Your task to perform on an android device: set the timer Image 0: 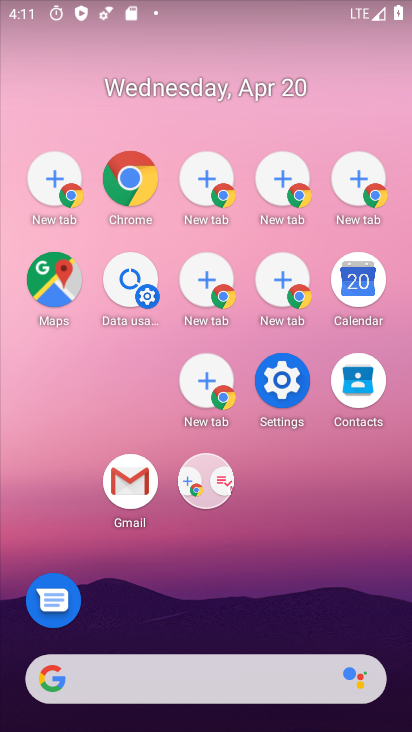
Step 0: drag from (26, 465) to (20, 215)
Your task to perform on an android device: set the timer Image 1: 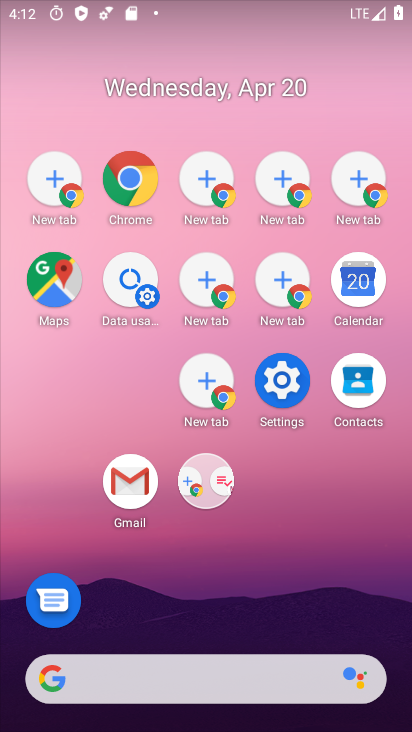
Step 1: drag from (297, 550) to (68, 141)
Your task to perform on an android device: set the timer Image 2: 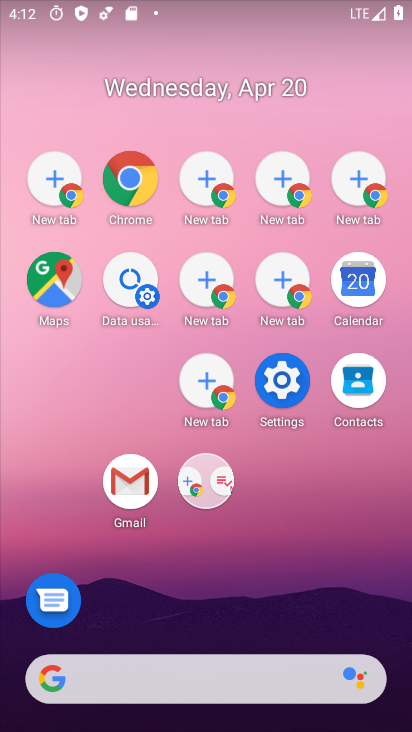
Step 2: press home button
Your task to perform on an android device: set the timer Image 3: 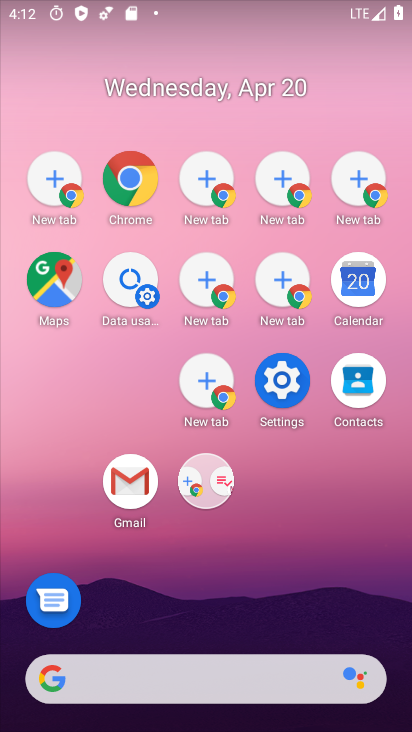
Step 3: drag from (305, 570) to (22, 134)
Your task to perform on an android device: set the timer Image 4: 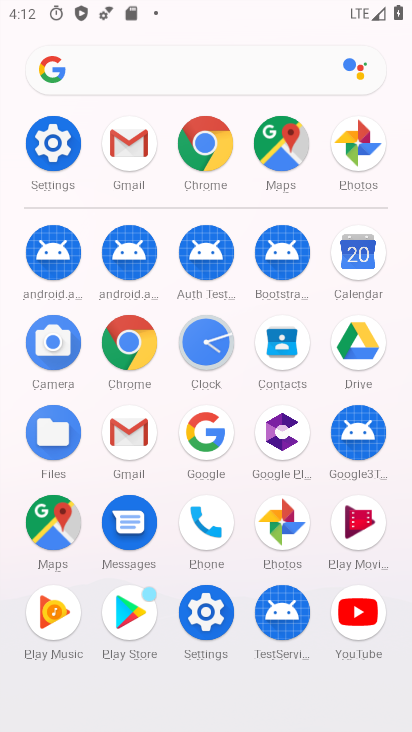
Step 4: click (205, 334)
Your task to perform on an android device: set the timer Image 5: 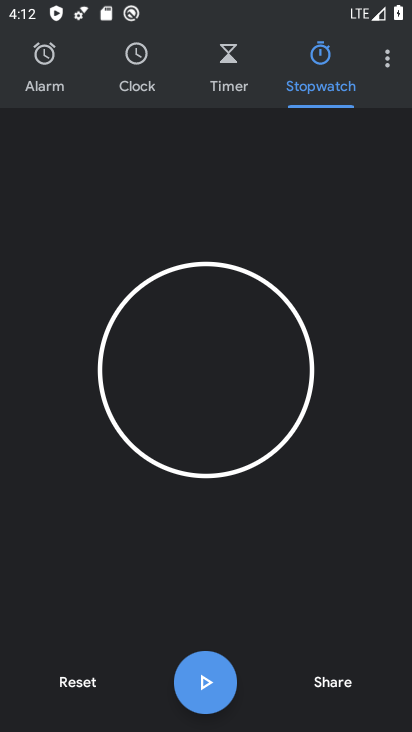
Step 5: click (217, 75)
Your task to perform on an android device: set the timer Image 6: 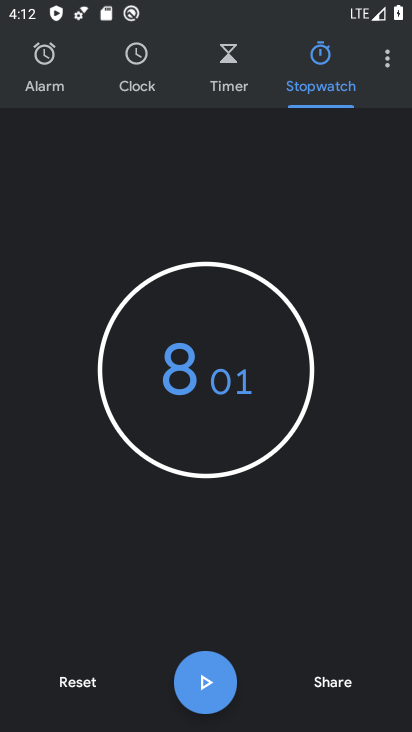
Step 6: click (225, 66)
Your task to perform on an android device: set the timer Image 7: 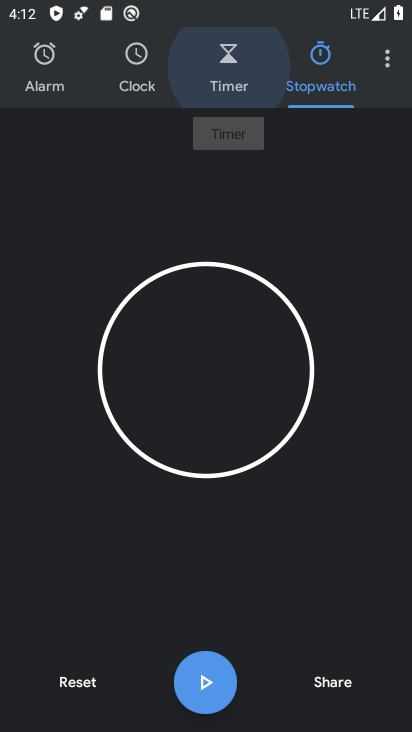
Step 7: click (227, 64)
Your task to perform on an android device: set the timer Image 8: 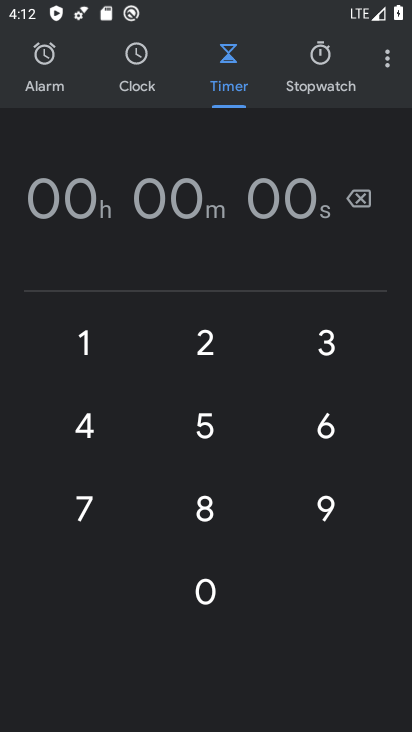
Step 8: click (227, 64)
Your task to perform on an android device: set the timer Image 9: 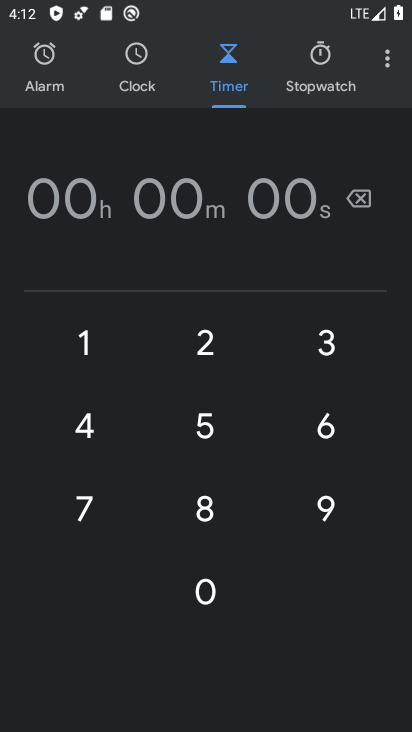
Step 9: click (204, 520)
Your task to perform on an android device: set the timer Image 10: 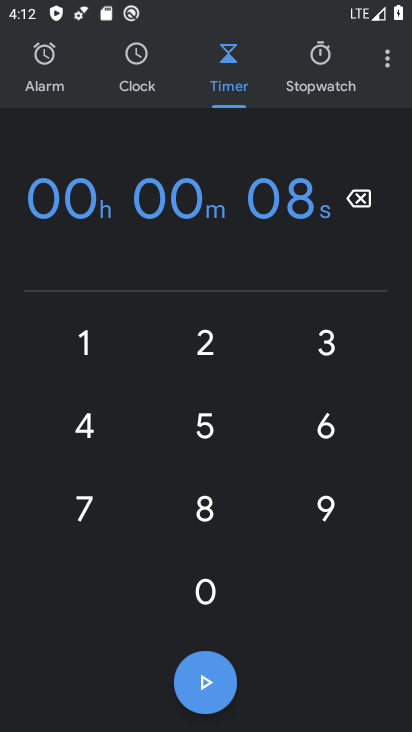
Step 10: click (208, 677)
Your task to perform on an android device: set the timer Image 11: 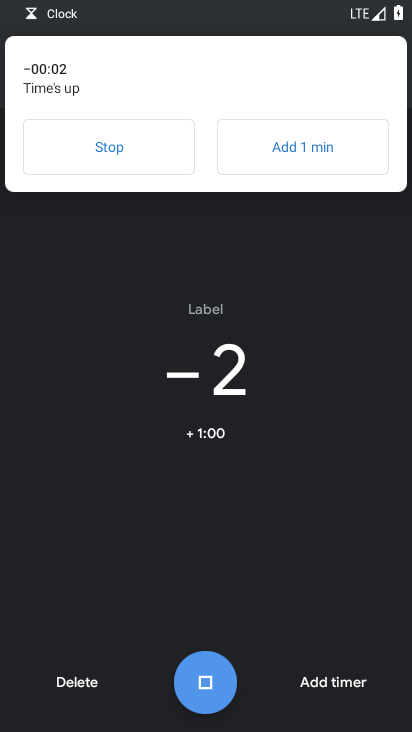
Step 11: click (120, 133)
Your task to perform on an android device: set the timer Image 12: 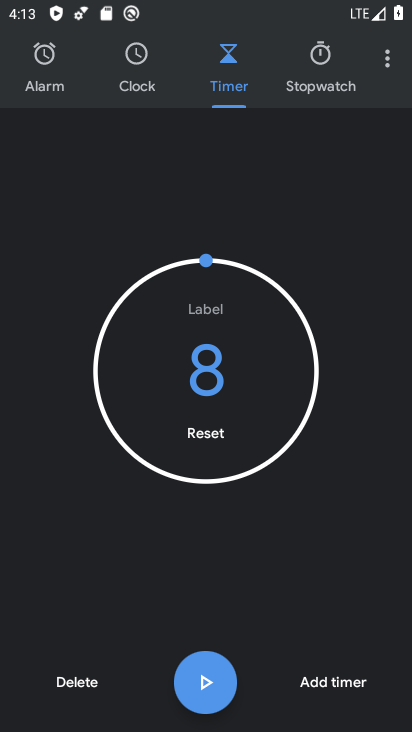
Step 12: task complete